Your task to perform on an android device: Turn on the flashlight Image 0: 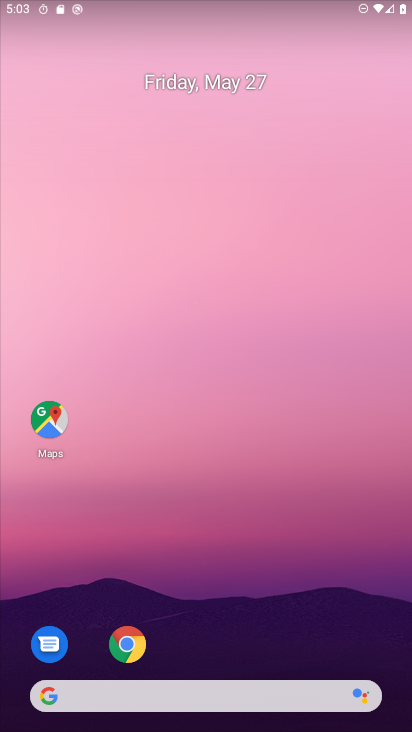
Step 0: drag from (201, 644) to (233, 93)
Your task to perform on an android device: Turn on the flashlight Image 1: 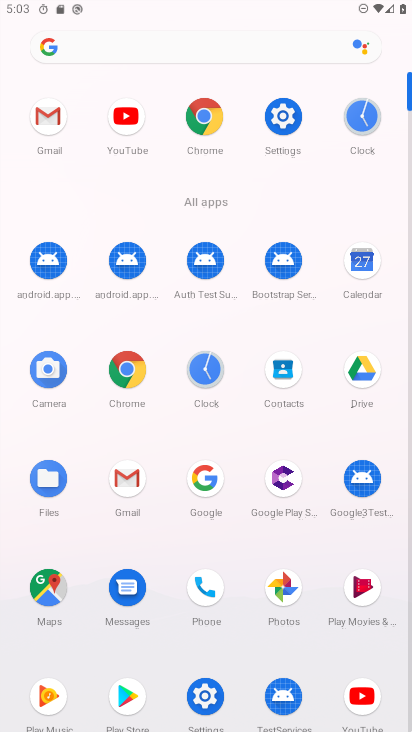
Step 1: click (206, 692)
Your task to perform on an android device: Turn on the flashlight Image 2: 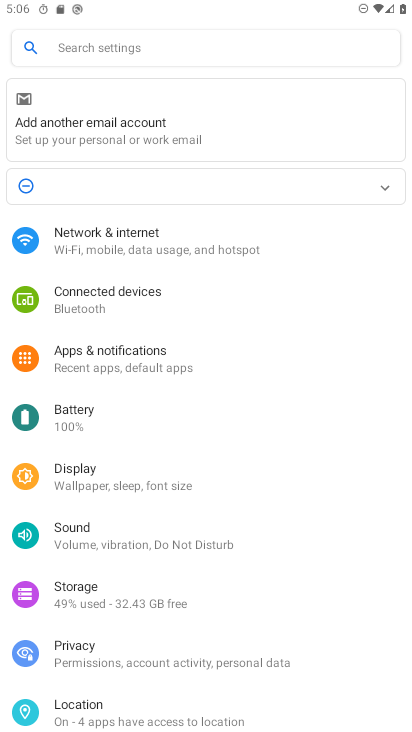
Step 2: task complete